Your task to perform on an android device: uninstall "Google Translate" Image 0: 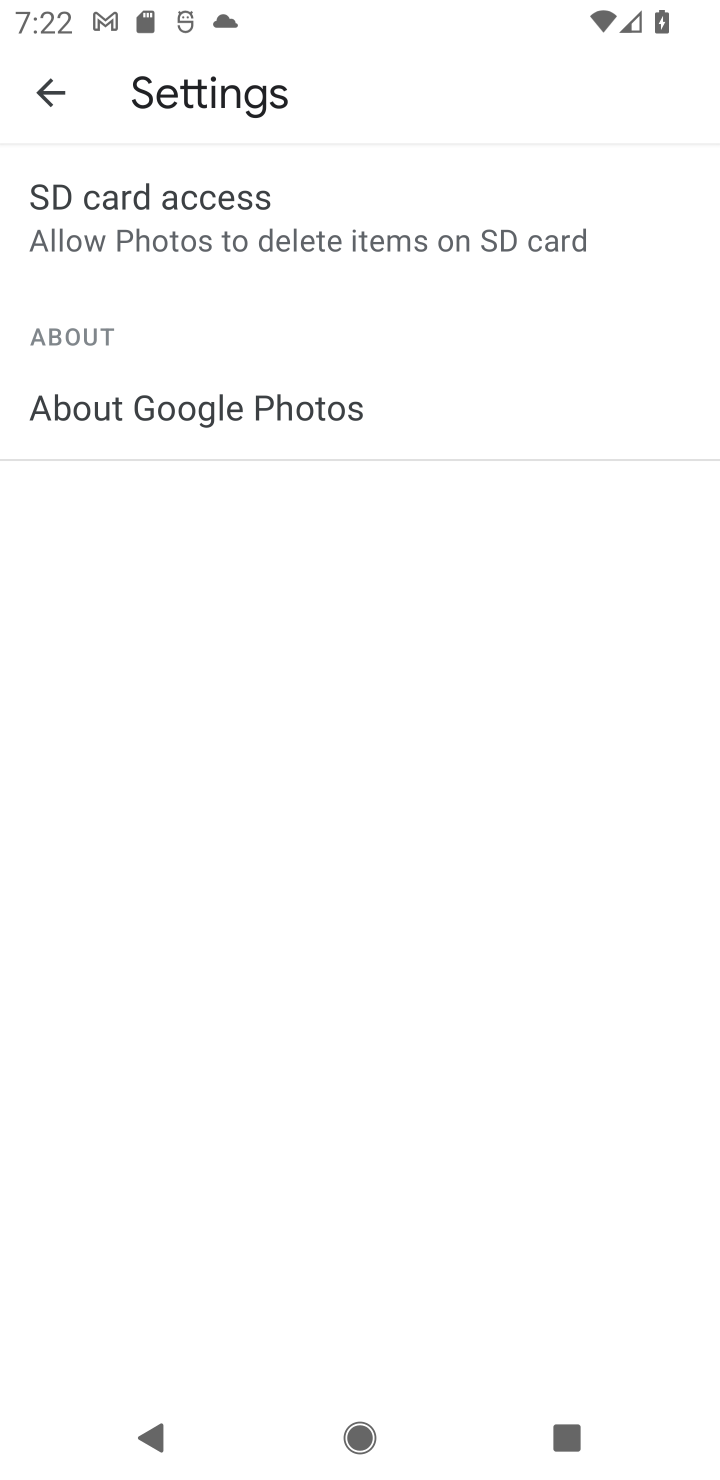
Step 0: press home button
Your task to perform on an android device: uninstall "Google Translate" Image 1: 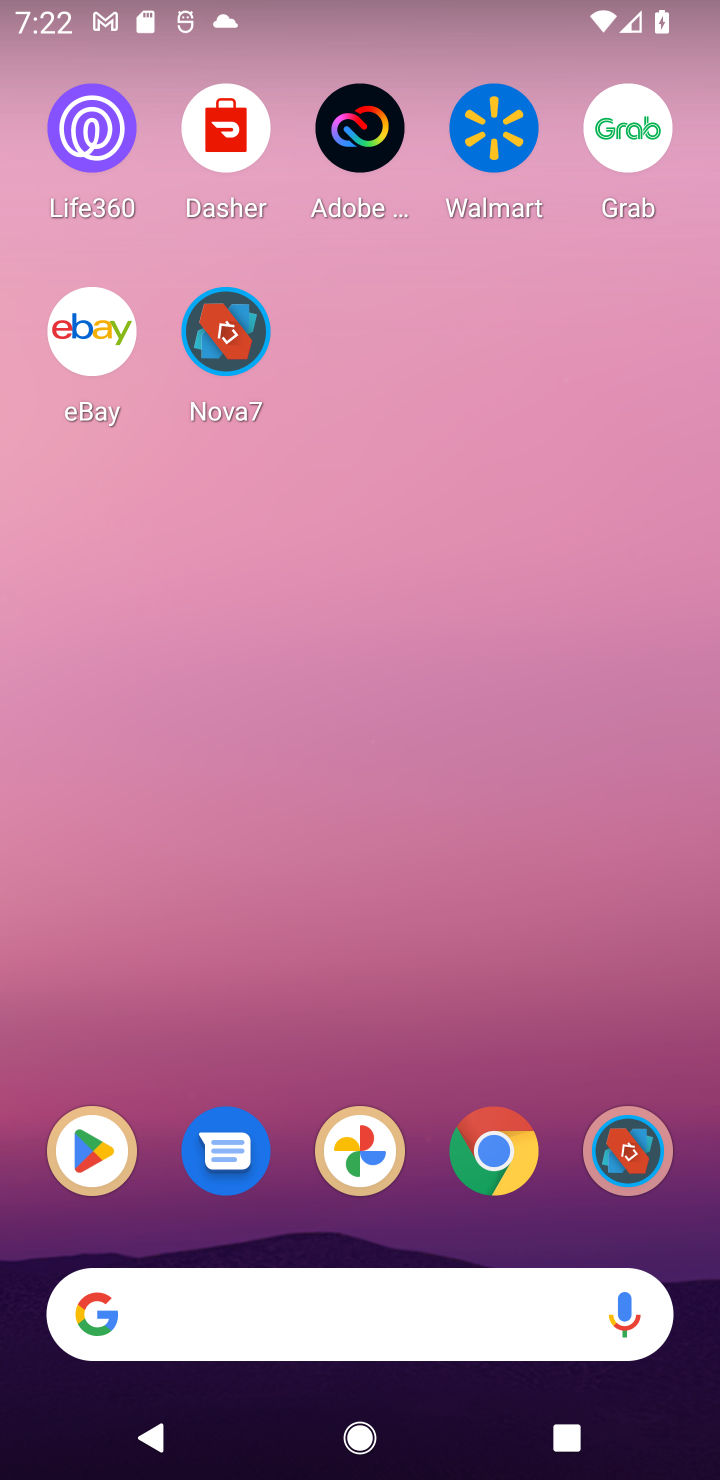
Step 1: click (74, 1158)
Your task to perform on an android device: uninstall "Google Translate" Image 2: 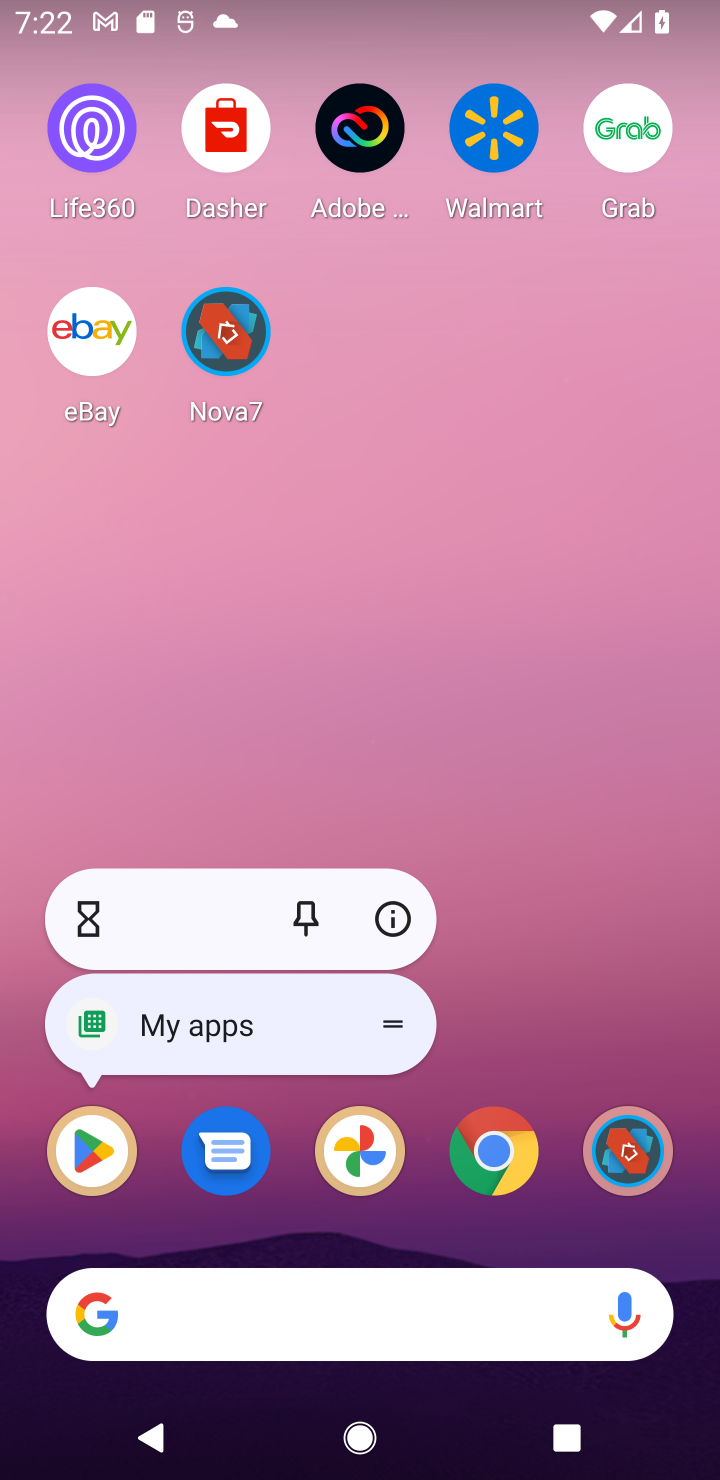
Step 2: click (69, 1160)
Your task to perform on an android device: uninstall "Google Translate" Image 3: 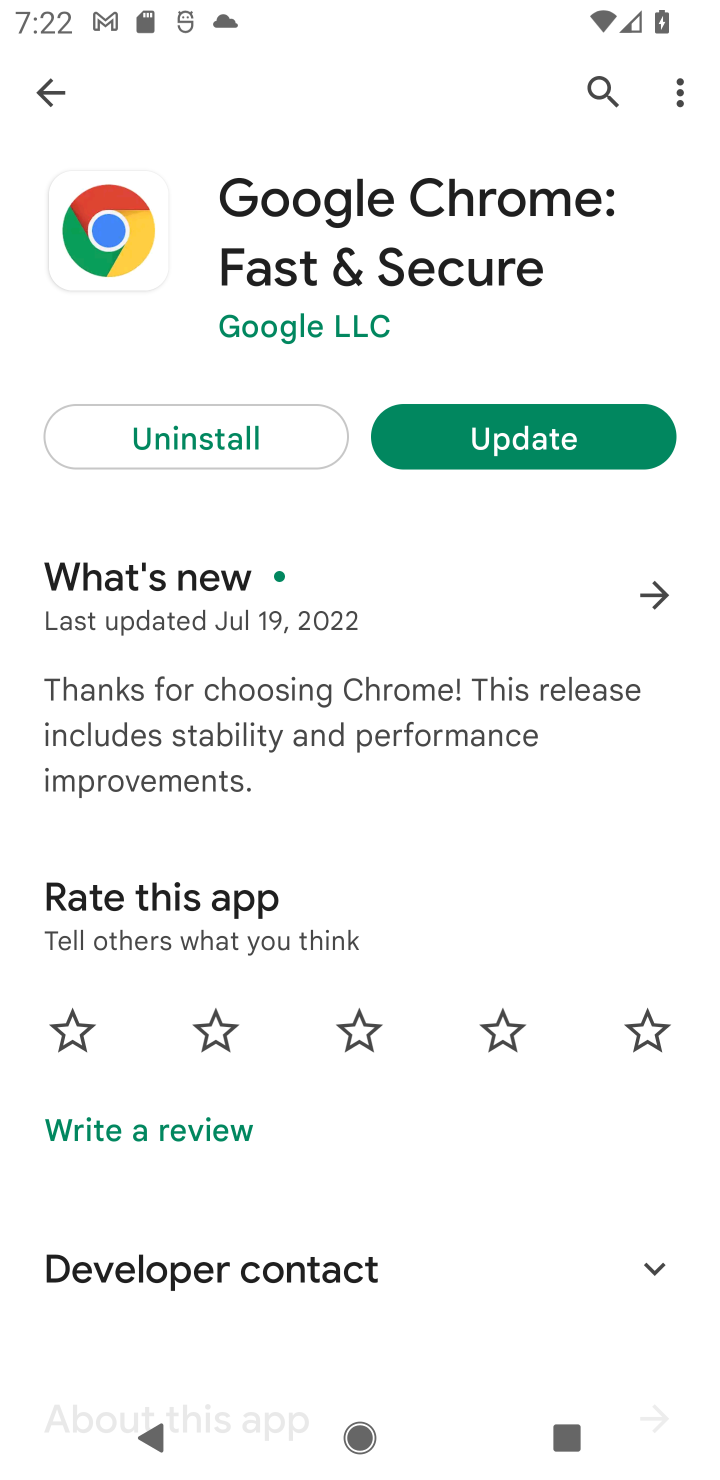
Step 3: click (611, 100)
Your task to perform on an android device: uninstall "Google Translate" Image 4: 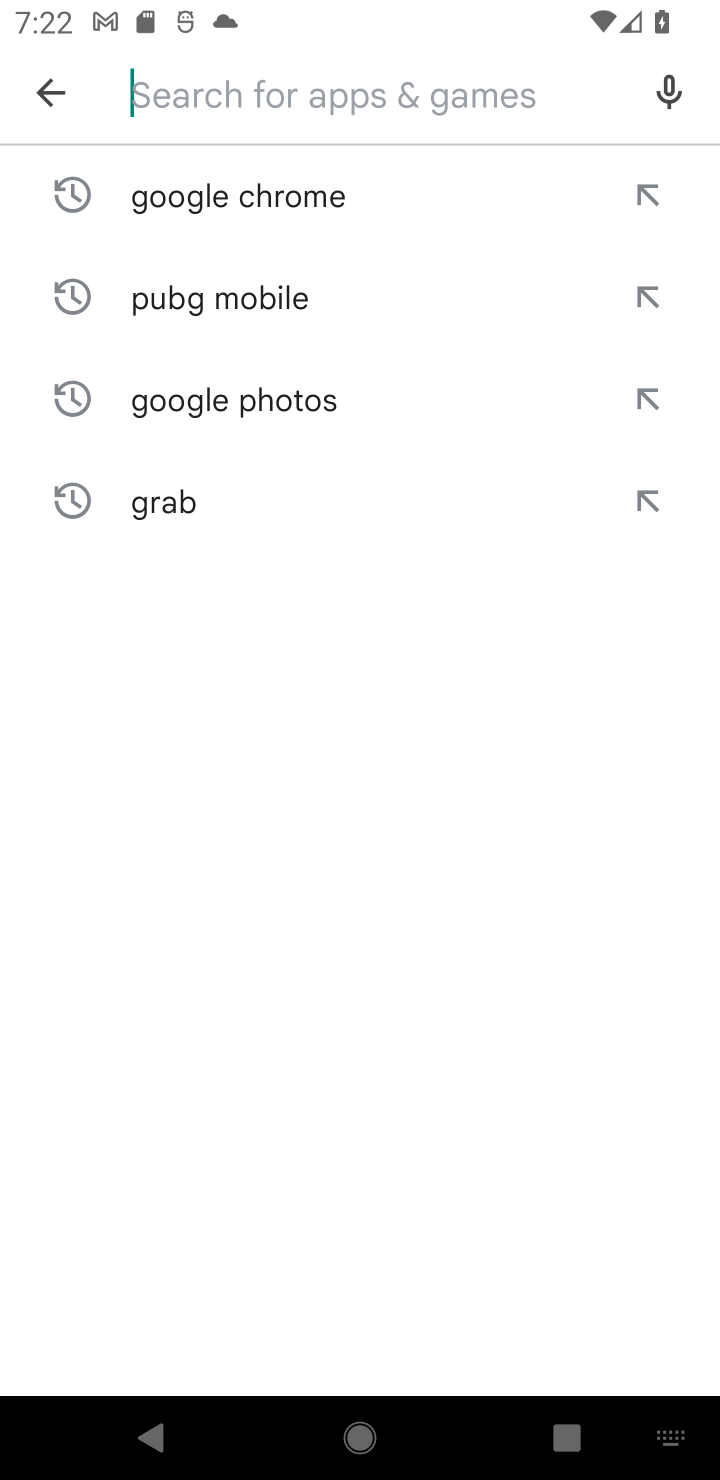
Step 4: type "Google Translate"
Your task to perform on an android device: uninstall "Google Translate" Image 5: 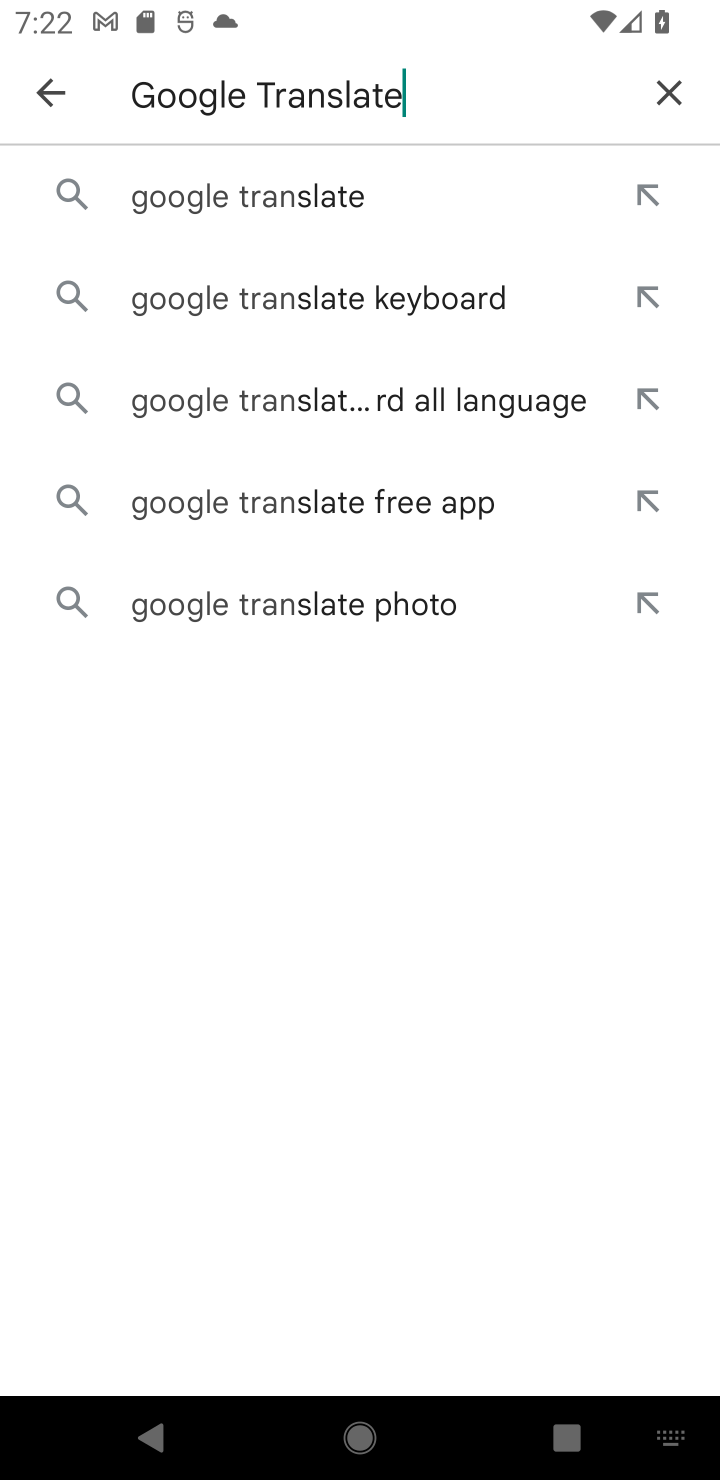
Step 5: type ""
Your task to perform on an android device: uninstall "Google Translate" Image 6: 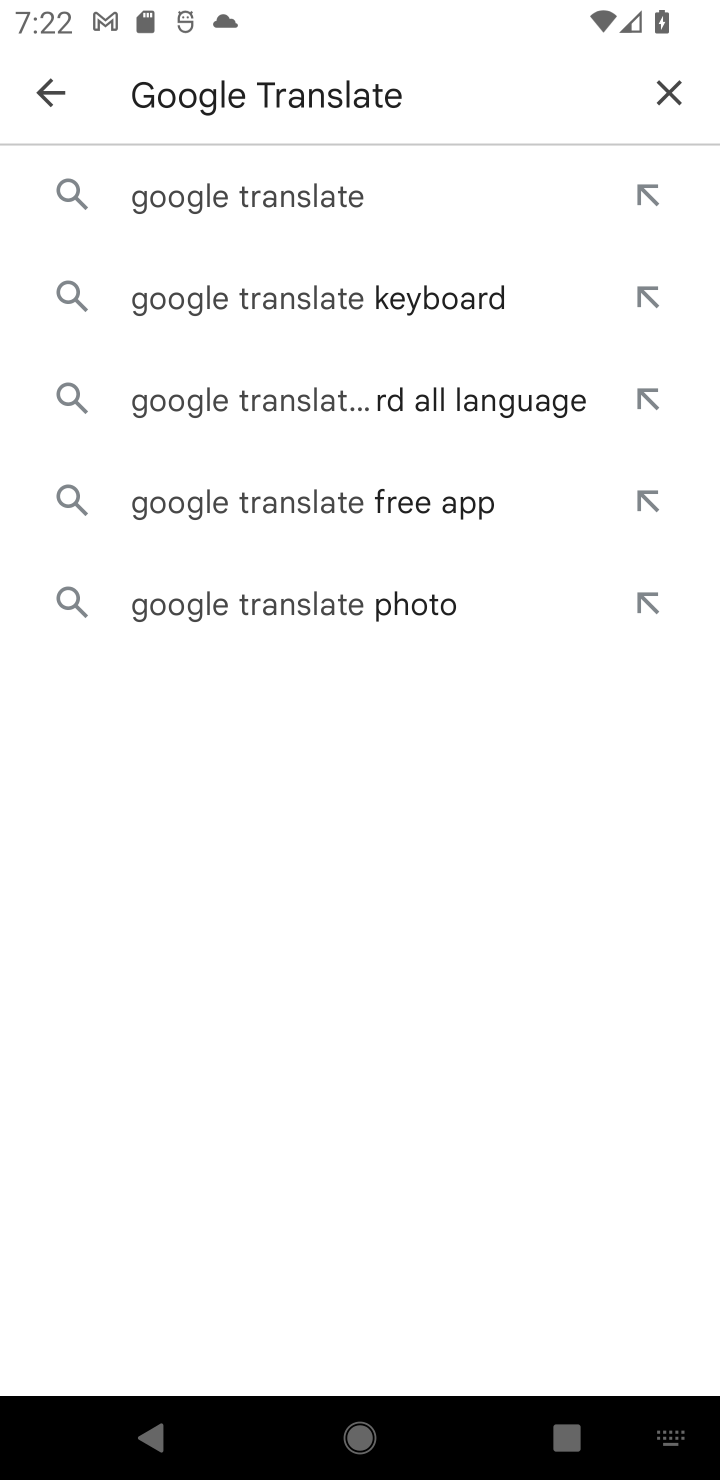
Step 6: click (389, 184)
Your task to perform on an android device: uninstall "Google Translate" Image 7: 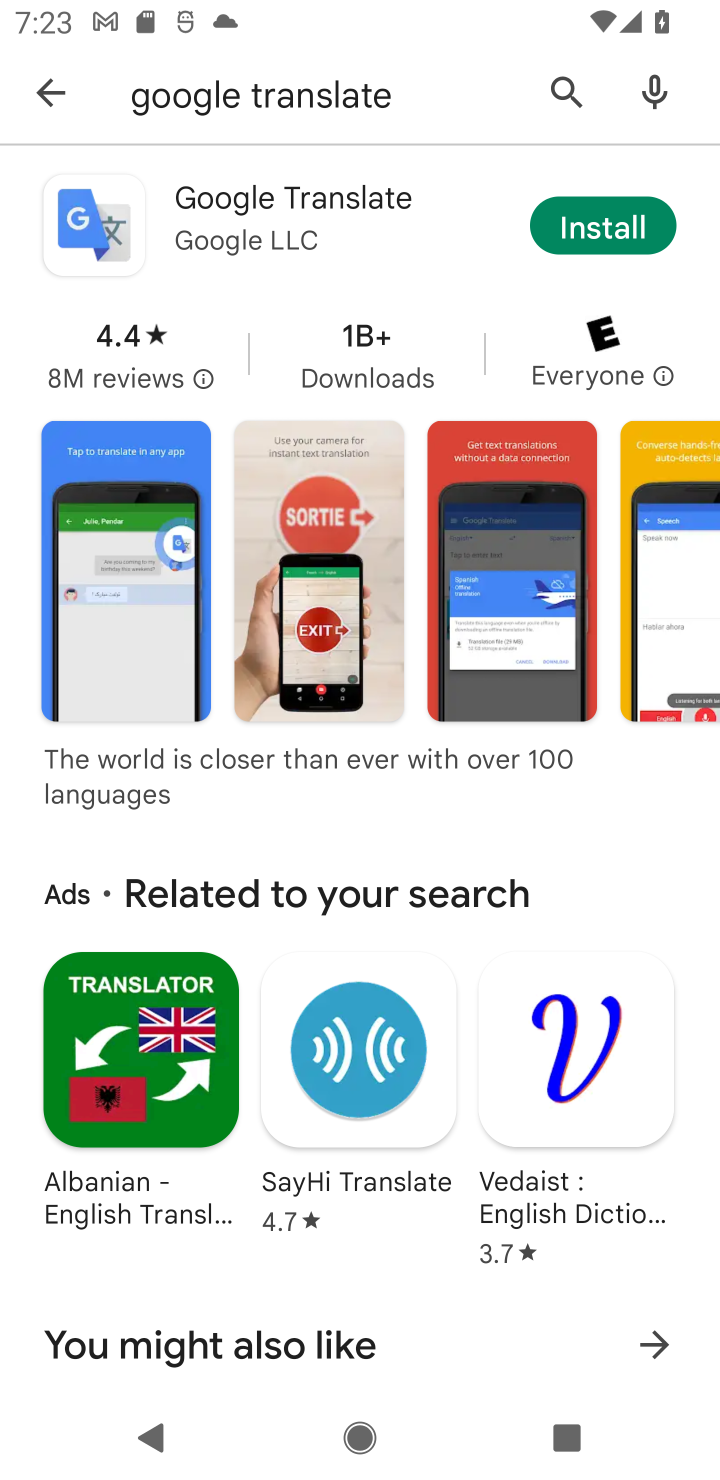
Step 7: click (382, 203)
Your task to perform on an android device: uninstall "Google Translate" Image 8: 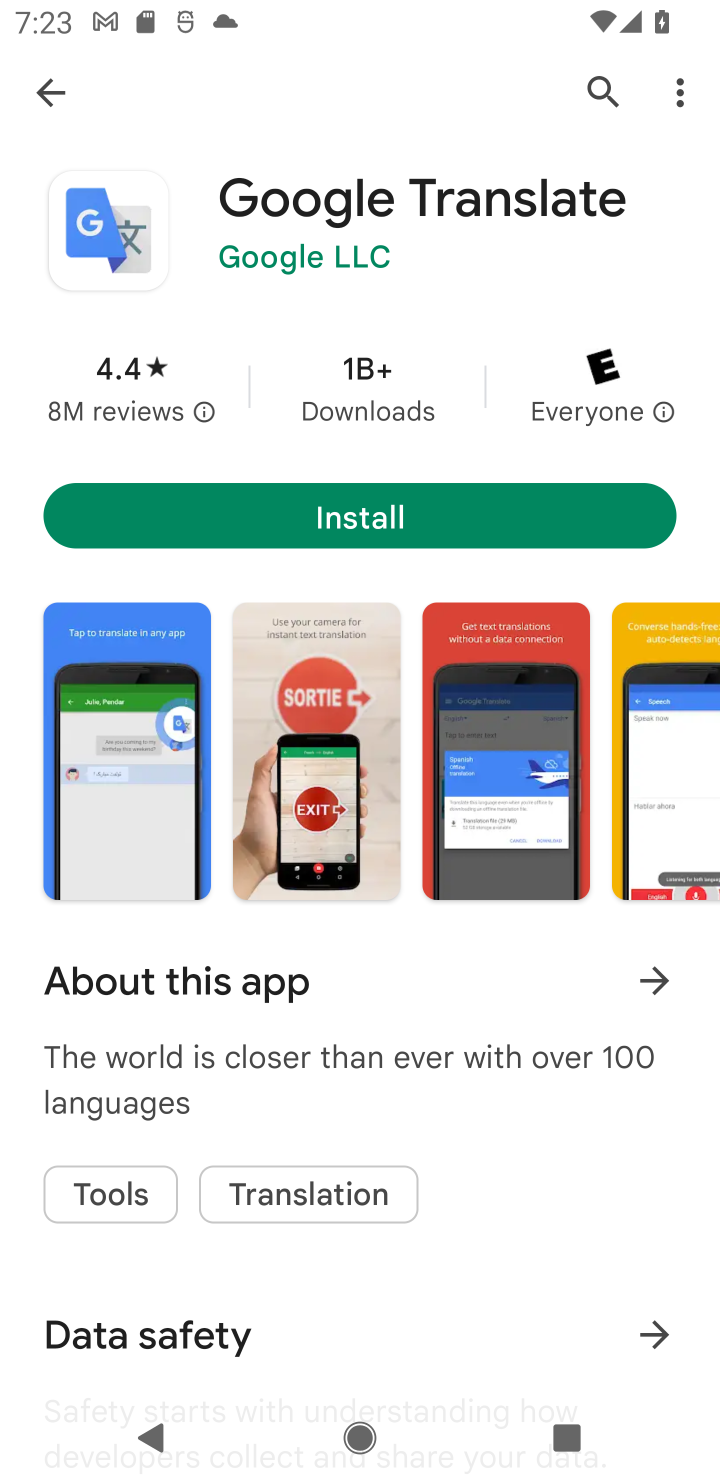
Step 8: task complete